Your task to perform on an android device: show emergency info Image 0: 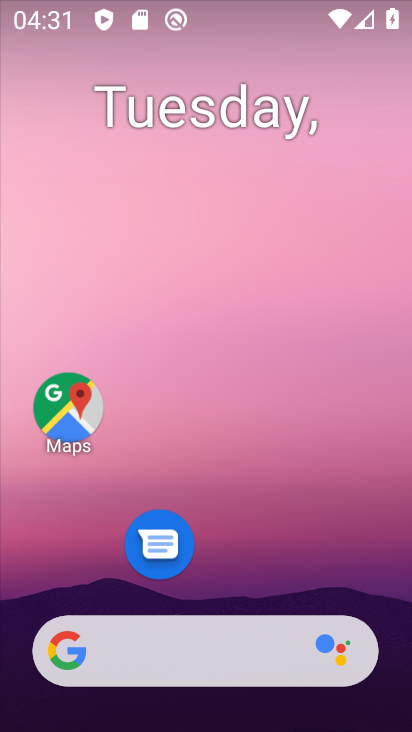
Step 0: drag from (256, 586) to (286, 121)
Your task to perform on an android device: show emergency info Image 1: 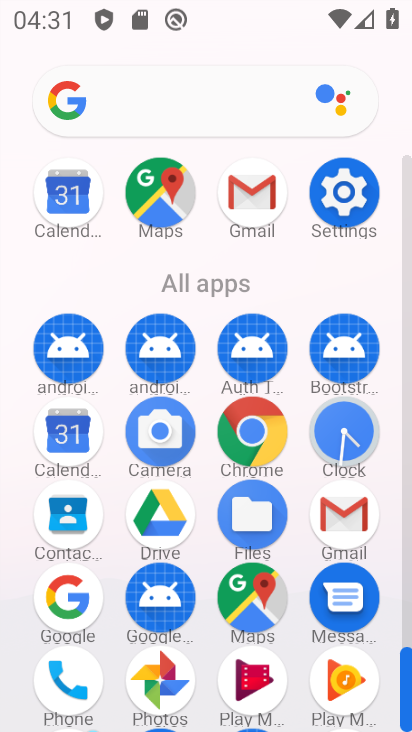
Step 1: click (351, 218)
Your task to perform on an android device: show emergency info Image 2: 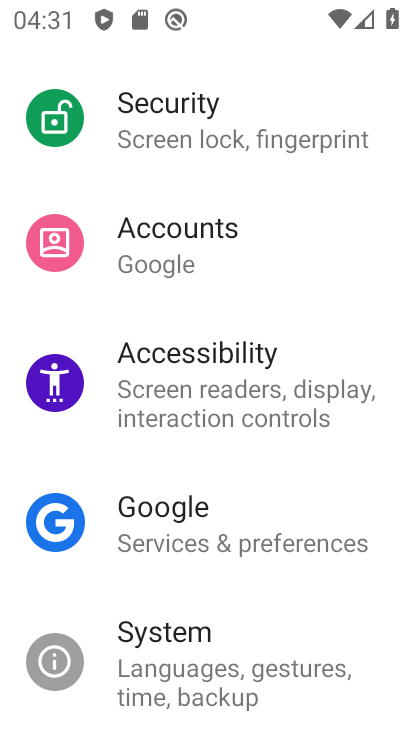
Step 2: drag from (234, 332) to (244, 210)
Your task to perform on an android device: show emergency info Image 3: 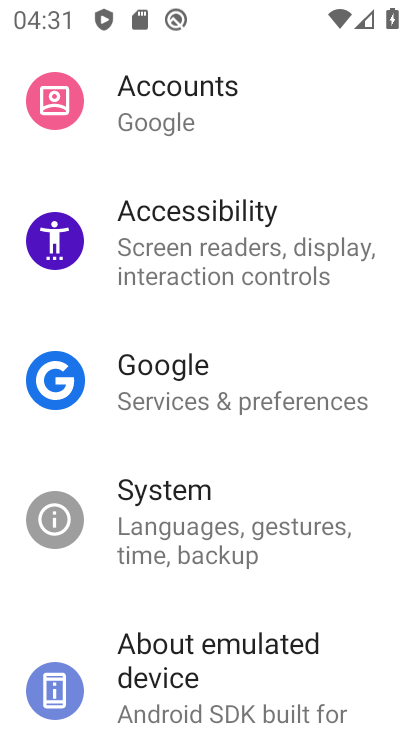
Step 3: drag from (211, 630) to (217, 522)
Your task to perform on an android device: show emergency info Image 4: 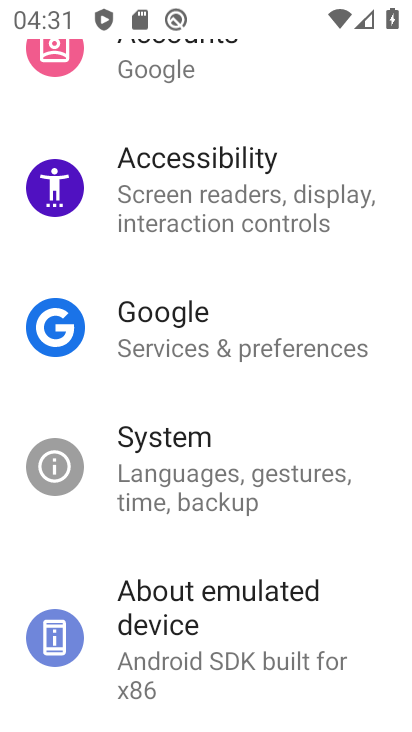
Step 4: click (185, 600)
Your task to perform on an android device: show emergency info Image 5: 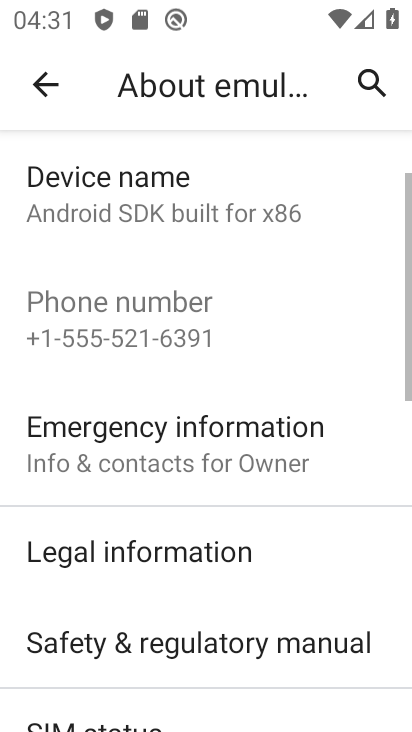
Step 5: click (162, 453)
Your task to perform on an android device: show emergency info Image 6: 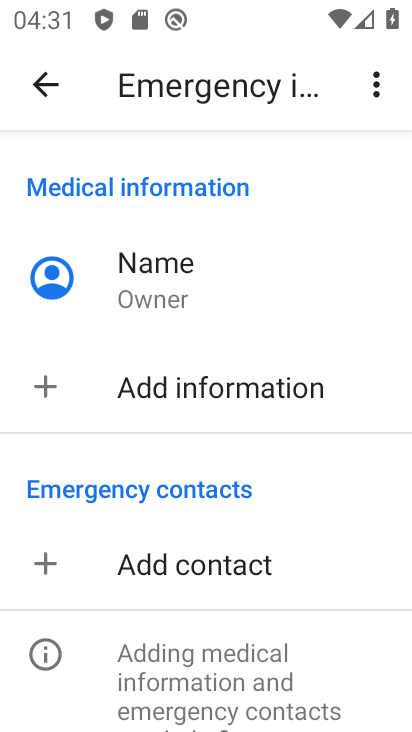
Step 6: task complete